Your task to perform on an android device: Open Youtube and go to the subscriptions tab Image 0: 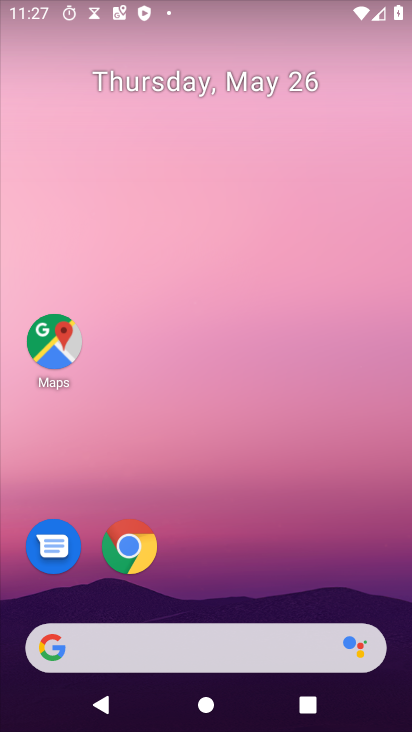
Step 0: drag from (362, 590) to (335, 153)
Your task to perform on an android device: Open Youtube and go to the subscriptions tab Image 1: 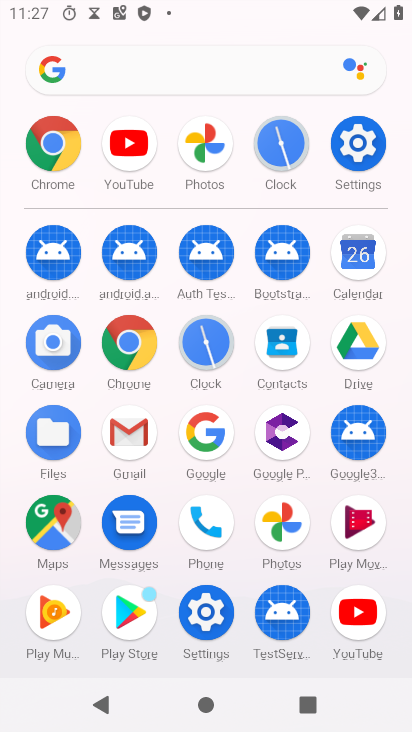
Step 1: click (372, 608)
Your task to perform on an android device: Open Youtube and go to the subscriptions tab Image 2: 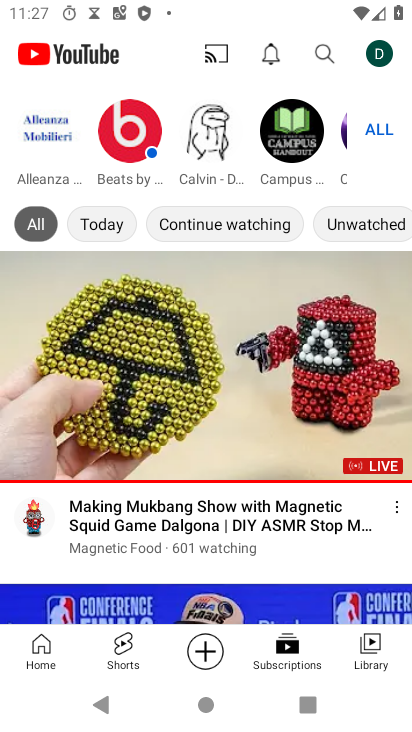
Step 2: click (302, 659)
Your task to perform on an android device: Open Youtube and go to the subscriptions tab Image 3: 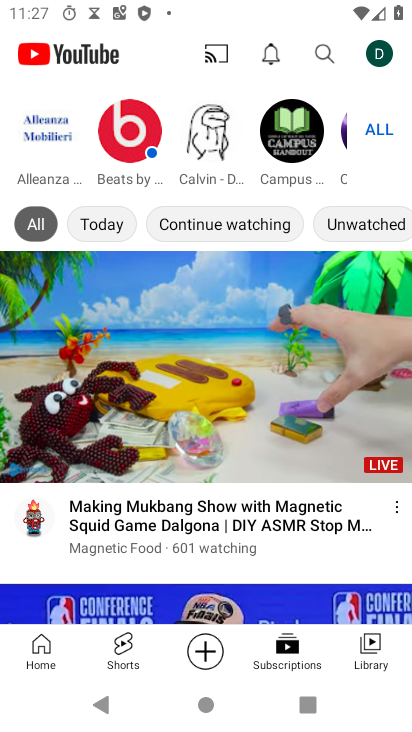
Step 3: click (298, 652)
Your task to perform on an android device: Open Youtube and go to the subscriptions tab Image 4: 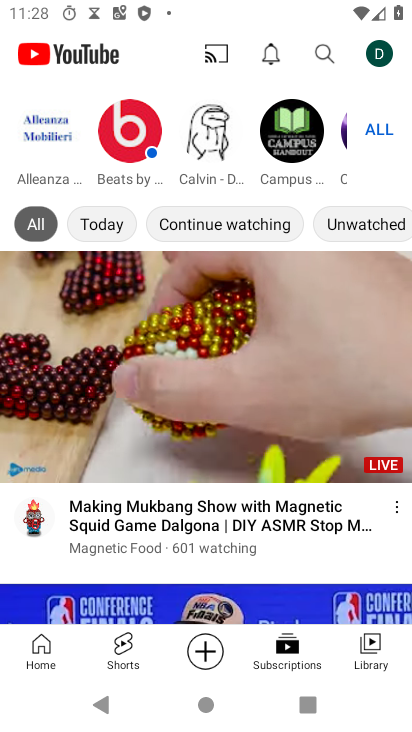
Step 4: task complete